Your task to perform on an android device: allow cookies in the chrome app Image 0: 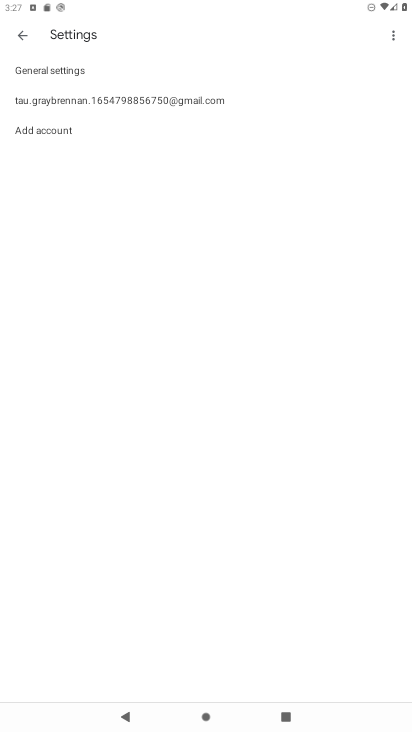
Step 0: press home button
Your task to perform on an android device: allow cookies in the chrome app Image 1: 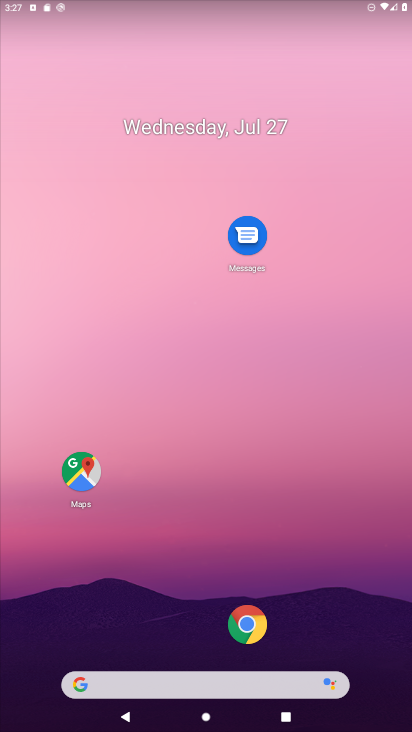
Step 1: click (241, 632)
Your task to perform on an android device: allow cookies in the chrome app Image 2: 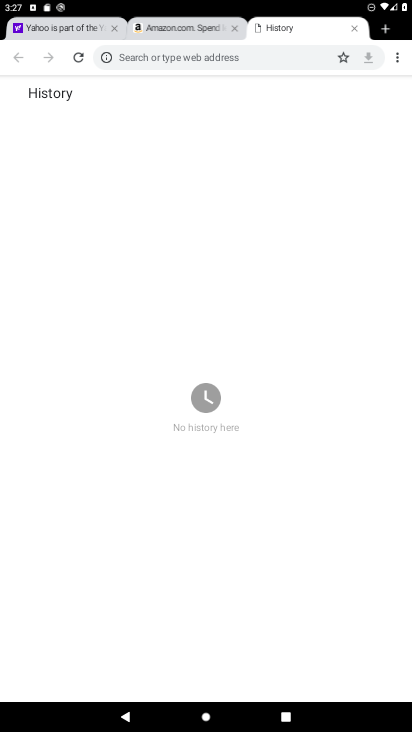
Step 2: click (397, 61)
Your task to perform on an android device: allow cookies in the chrome app Image 3: 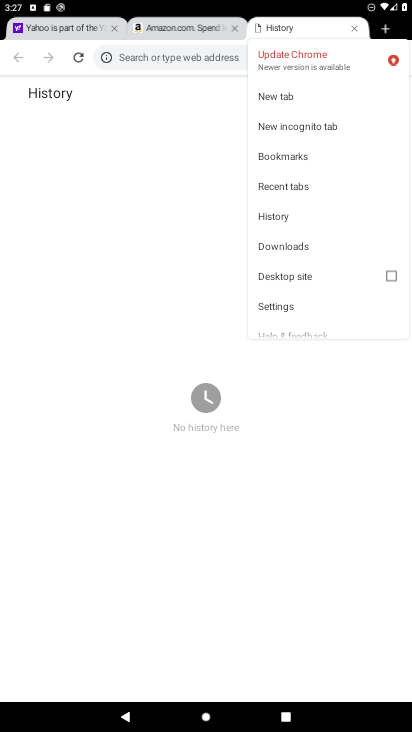
Step 3: click (277, 318)
Your task to perform on an android device: allow cookies in the chrome app Image 4: 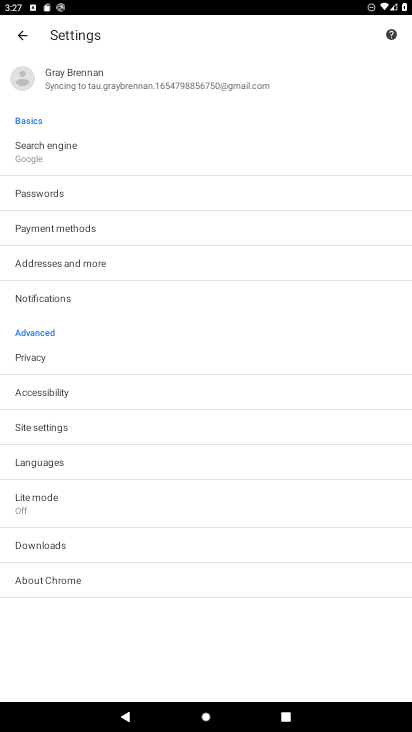
Step 4: click (40, 426)
Your task to perform on an android device: allow cookies in the chrome app Image 5: 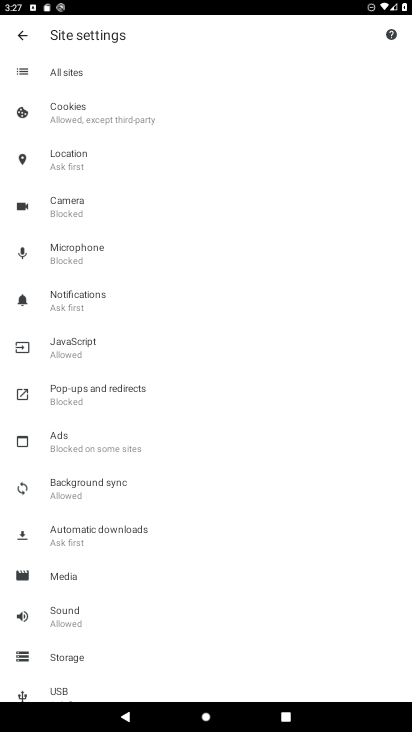
Step 5: click (91, 123)
Your task to perform on an android device: allow cookies in the chrome app Image 6: 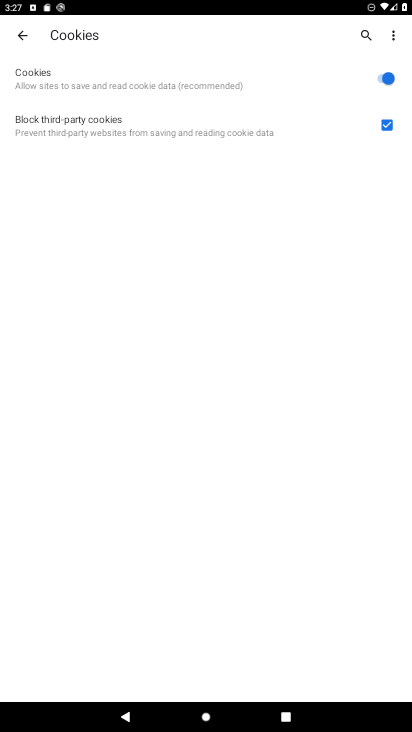
Step 6: task complete